Your task to perform on an android device: Go to calendar. Show me events next week Image 0: 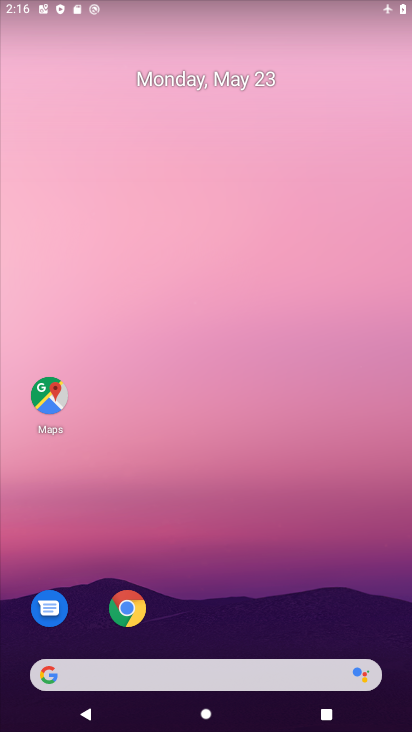
Step 0: drag from (208, 647) to (229, 25)
Your task to perform on an android device: Go to calendar. Show me events next week Image 1: 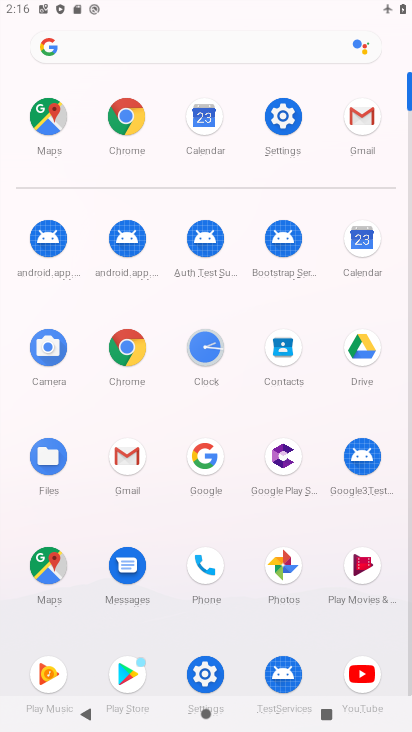
Step 1: click (357, 248)
Your task to perform on an android device: Go to calendar. Show me events next week Image 2: 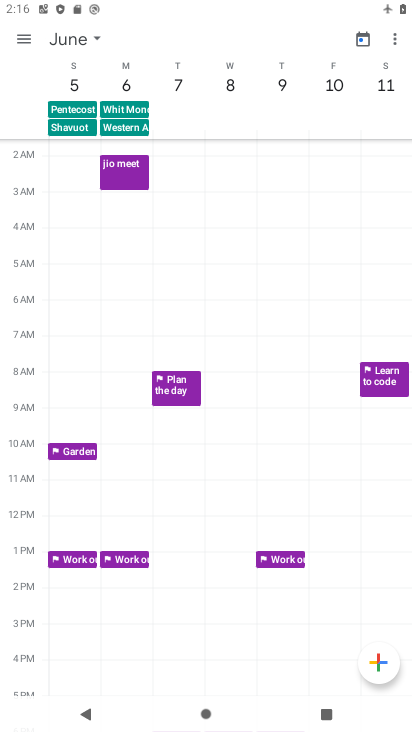
Step 2: task complete